Your task to perform on an android device: remove spam from my inbox in the gmail app Image 0: 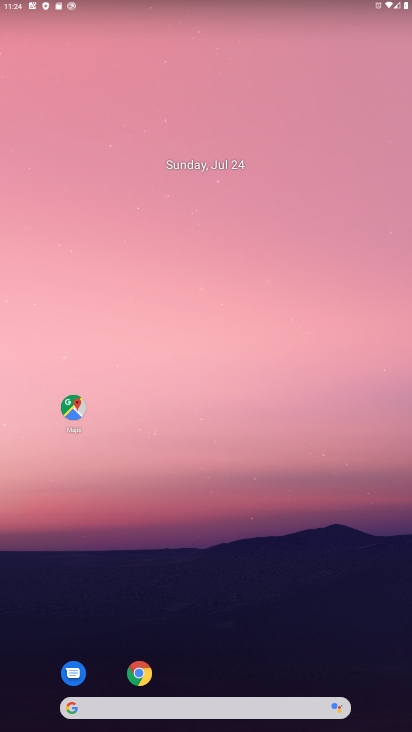
Step 0: drag from (280, 612) to (205, 114)
Your task to perform on an android device: remove spam from my inbox in the gmail app Image 1: 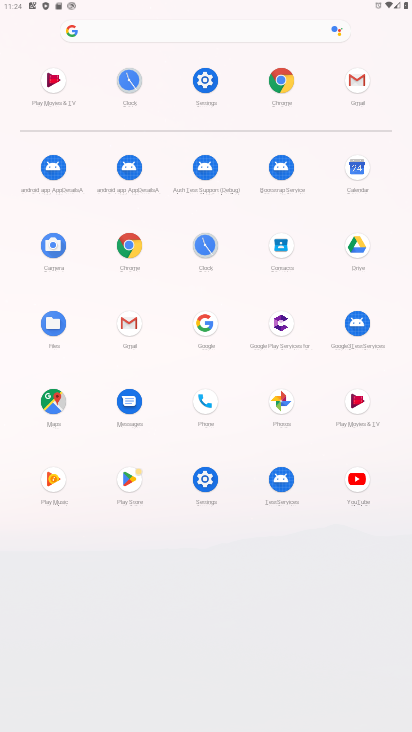
Step 1: click (351, 79)
Your task to perform on an android device: remove spam from my inbox in the gmail app Image 2: 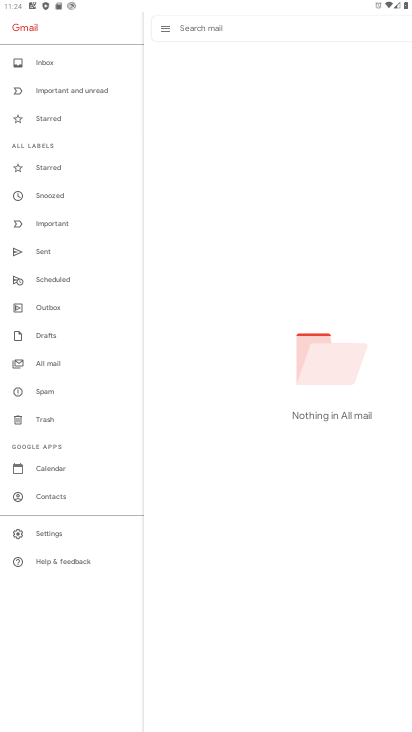
Step 2: click (41, 390)
Your task to perform on an android device: remove spam from my inbox in the gmail app Image 3: 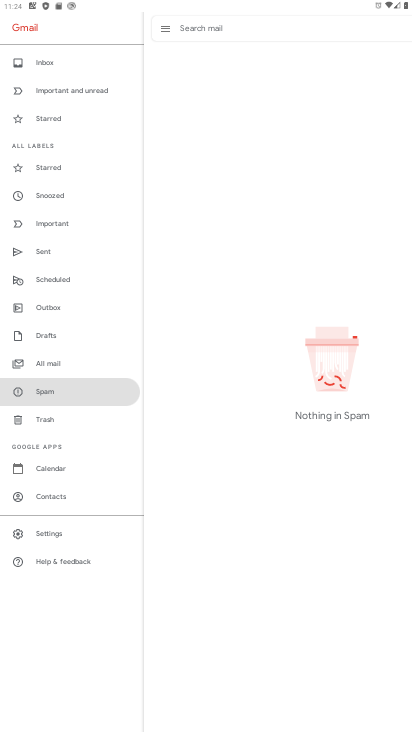
Step 3: click (43, 71)
Your task to perform on an android device: remove spam from my inbox in the gmail app Image 4: 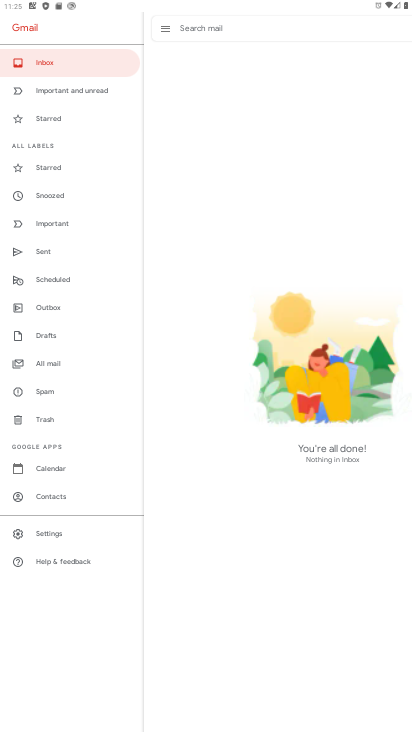
Step 4: task complete